Your task to perform on an android device: remove spam from my inbox in the gmail app Image 0: 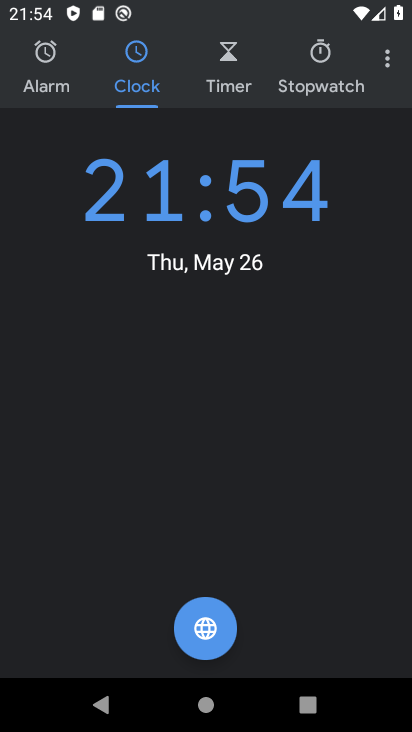
Step 0: press home button
Your task to perform on an android device: remove spam from my inbox in the gmail app Image 1: 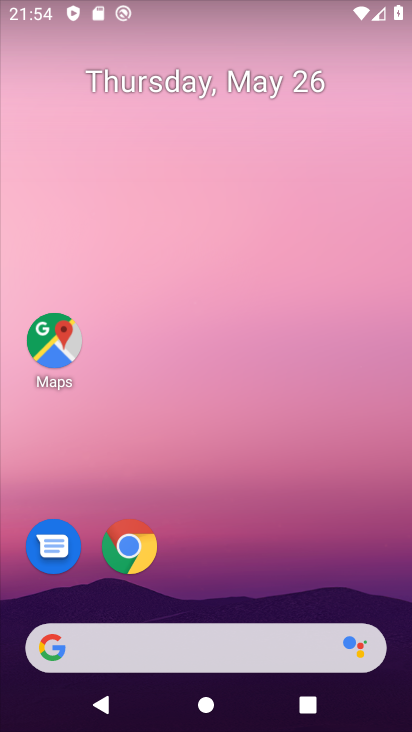
Step 1: drag from (303, 603) to (274, 203)
Your task to perform on an android device: remove spam from my inbox in the gmail app Image 2: 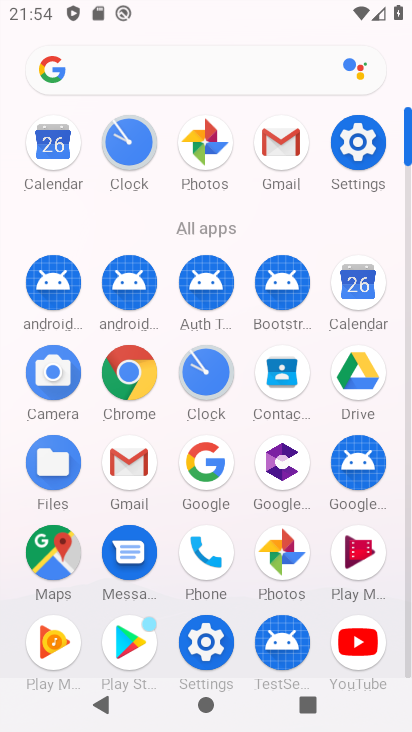
Step 2: click (276, 144)
Your task to perform on an android device: remove spam from my inbox in the gmail app Image 3: 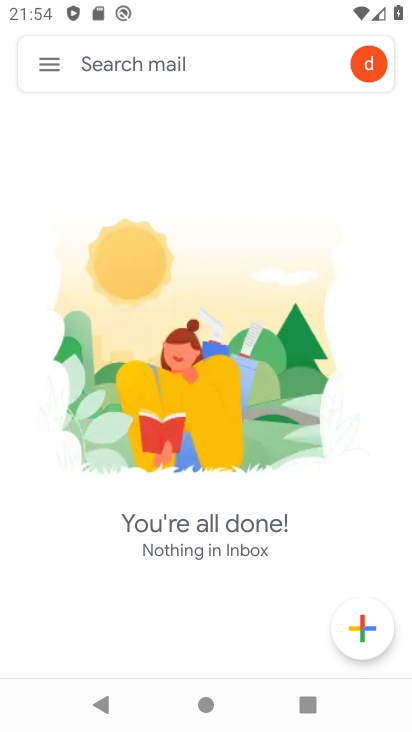
Step 3: click (46, 62)
Your task to perform on an android device: remove spam from my inbox in the gmail app Image 4: 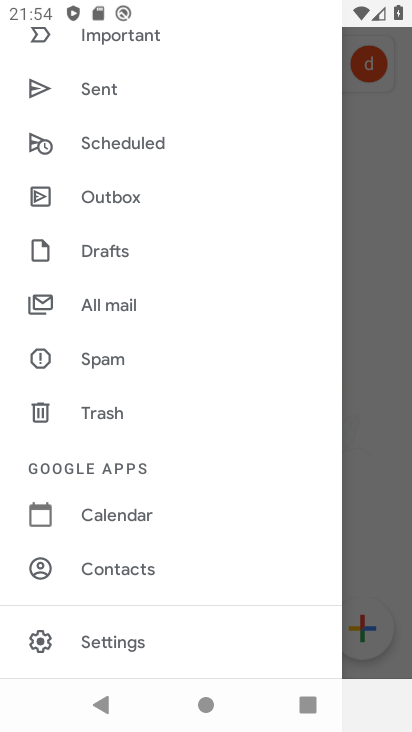
Step 4: click (112, 350)
Your task to perform on an android device: remove spam from my inbox in the gmail app Image 5: 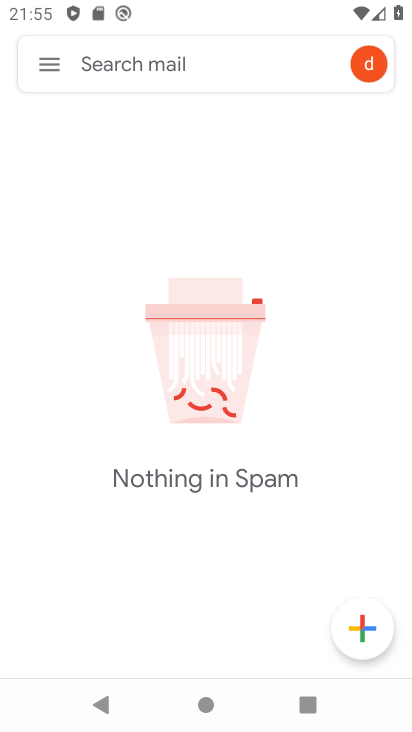
Step 5: task complete